Your task to perform on an android device: turn on bluetooth scan Image 0: 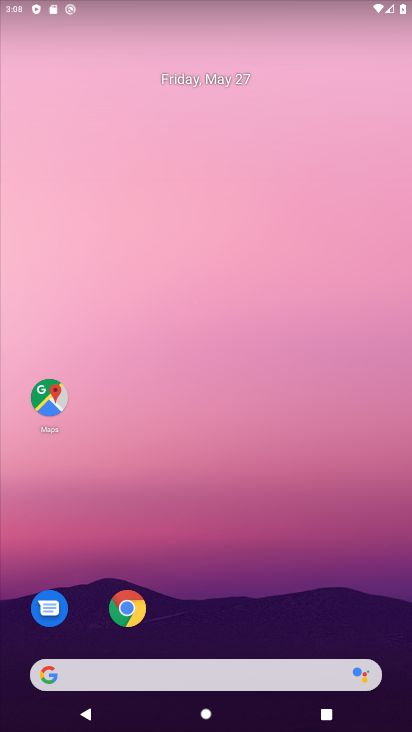
Step 0: drag from (242, 571) to (242, 212)
Your task to perform on an android device: turn on bluetooth scan Image 1: 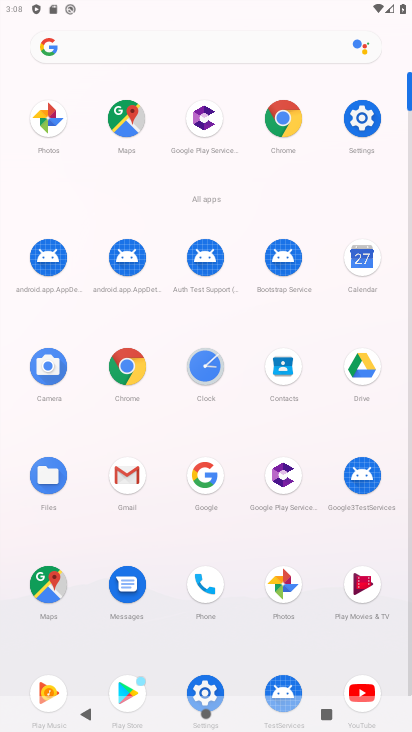
Step 1: click (366, 114)
Your task to perform on an android device: turn on bluetooth scan Image 2: 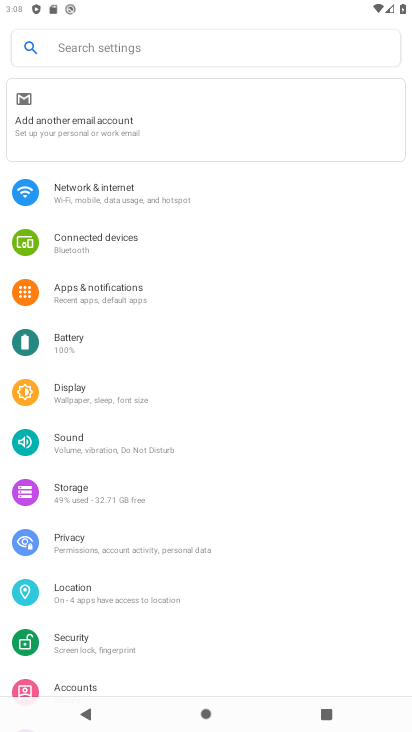
Step 2: click (88, 592)
Your task to perform on an android device: turn on bluetooth scan Image 3: 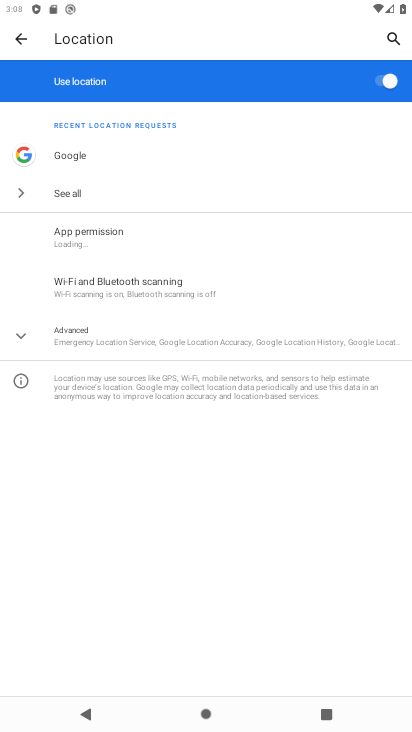
Step 3: click (99, 287)
Your task to perform on an android device: turn on bluetooth scan Image 4: 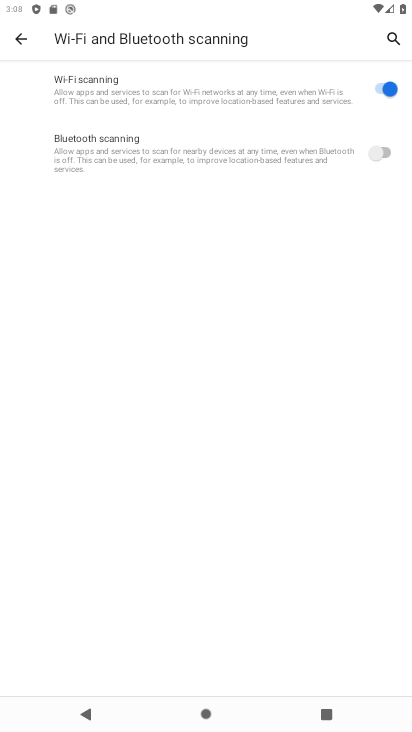
Step 4: click (152, 151)
Your task to perform on an android device: turn on bluetooth scan Image 5: 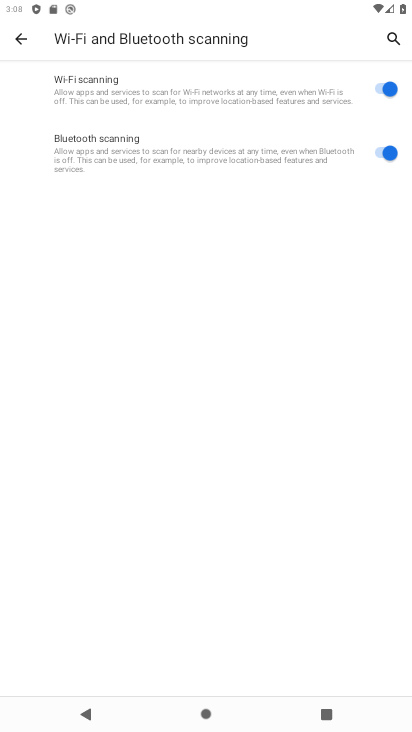
Step 5: task complete